Your task to perform on an android device: Clear the shopping cart on costco.com. Add "logitech g pro" to the cart on costco.com Image 0: 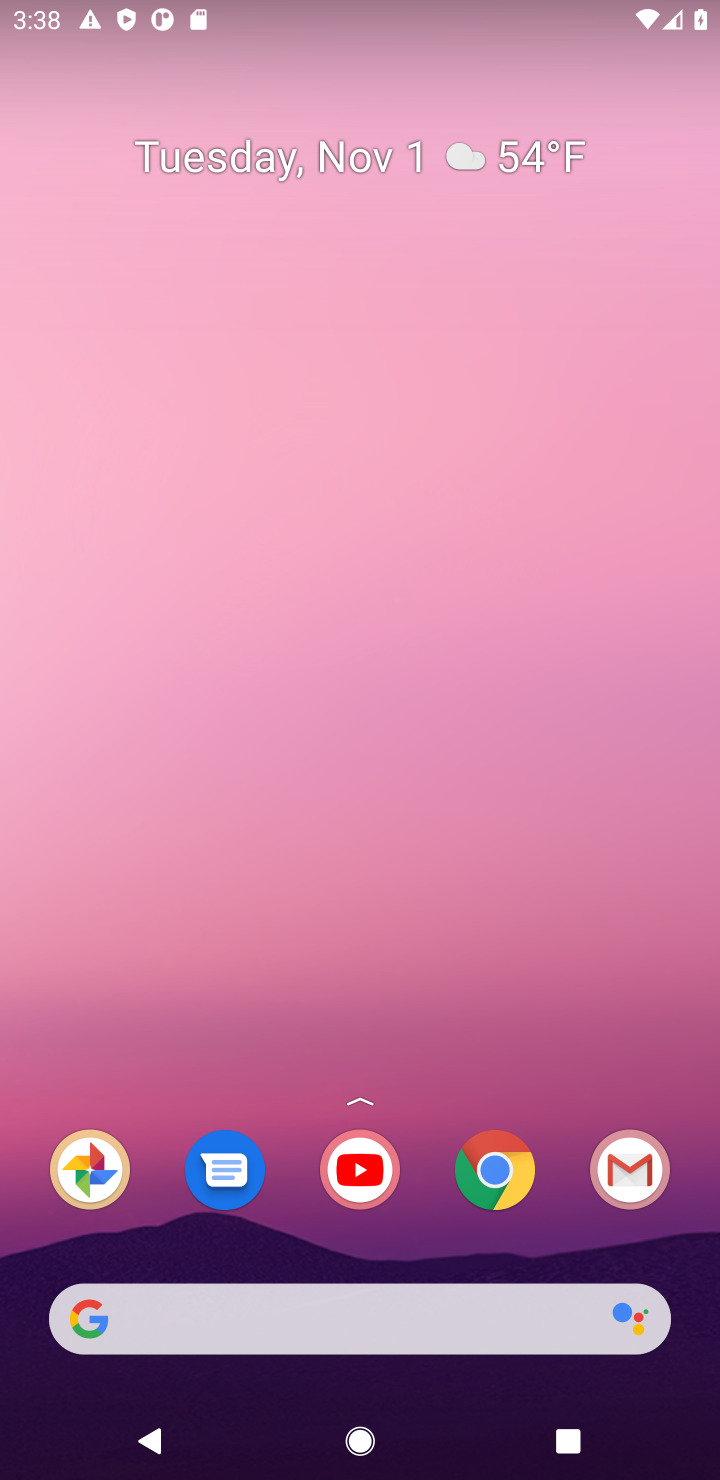
Step 0: drag from (442, 1350) to (401, 171)
Your task to perform on an android device: Clear the shopping cart on costco.com. Add "logitech g pro" to the cart on costco.com Image 1: 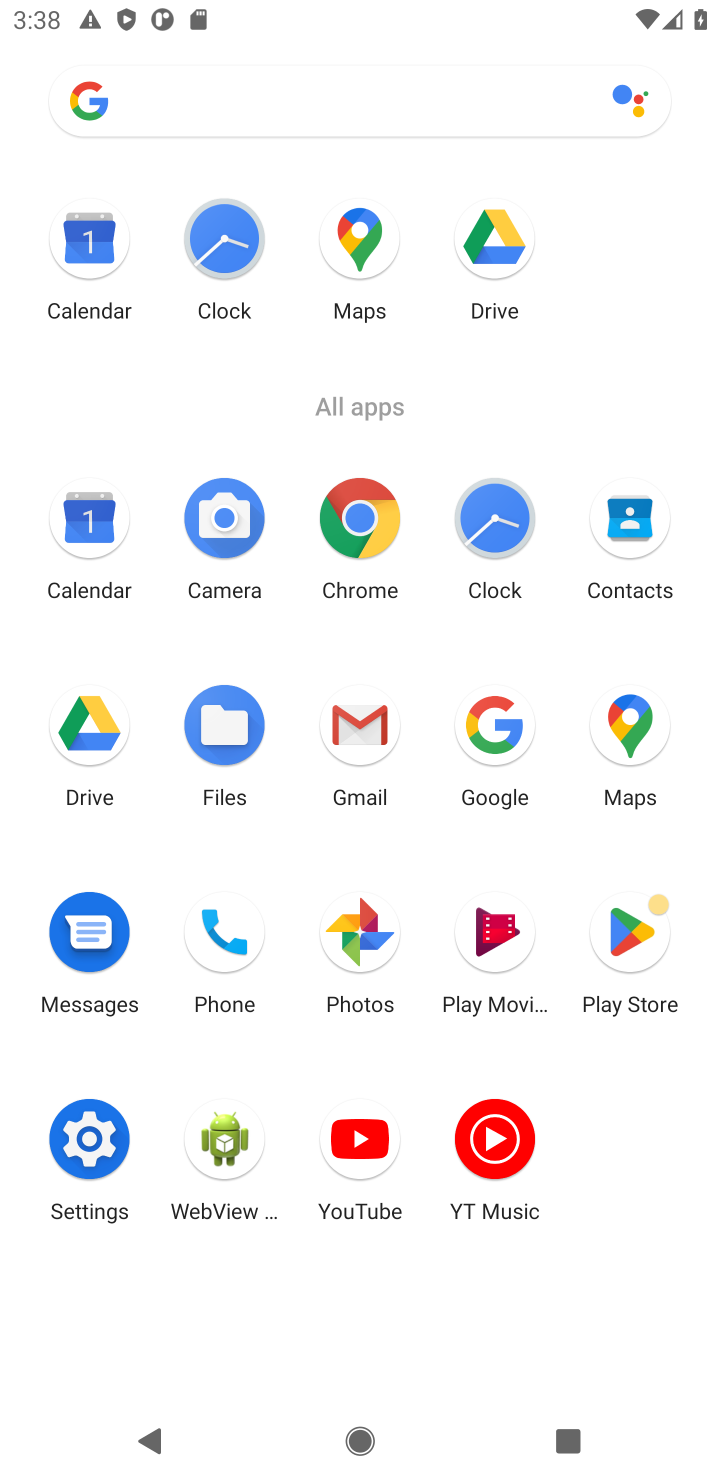
Step 1: click (349, 533)
Your task to perform on an android device: Clear the shopping cart on costco.com. Add "logitech g pro" to the cart on costco.com Image 2: 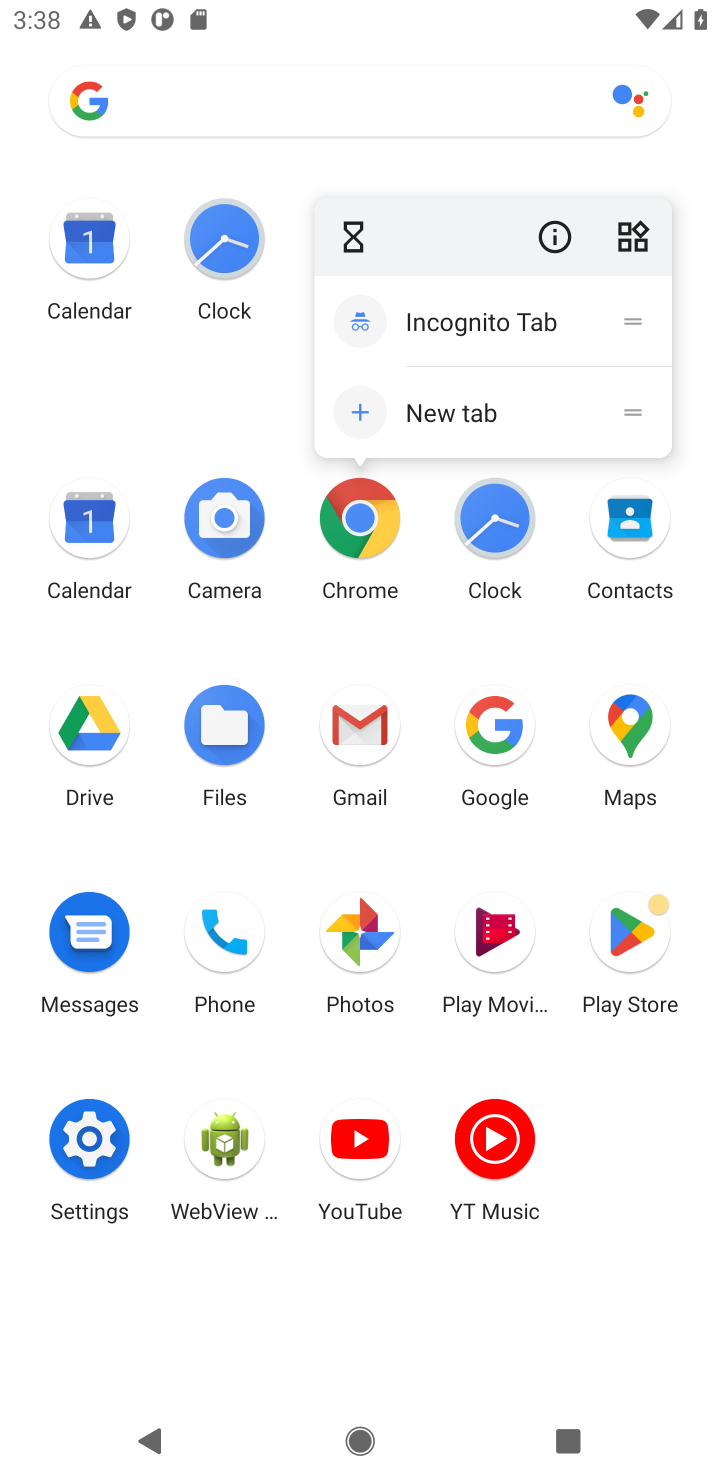
Step 2: click (370, 511)
Your task to perform on an android device: Clear the shopping cart on costco.com. Add "logitech g pro" to the cart on costco.com Image 3: 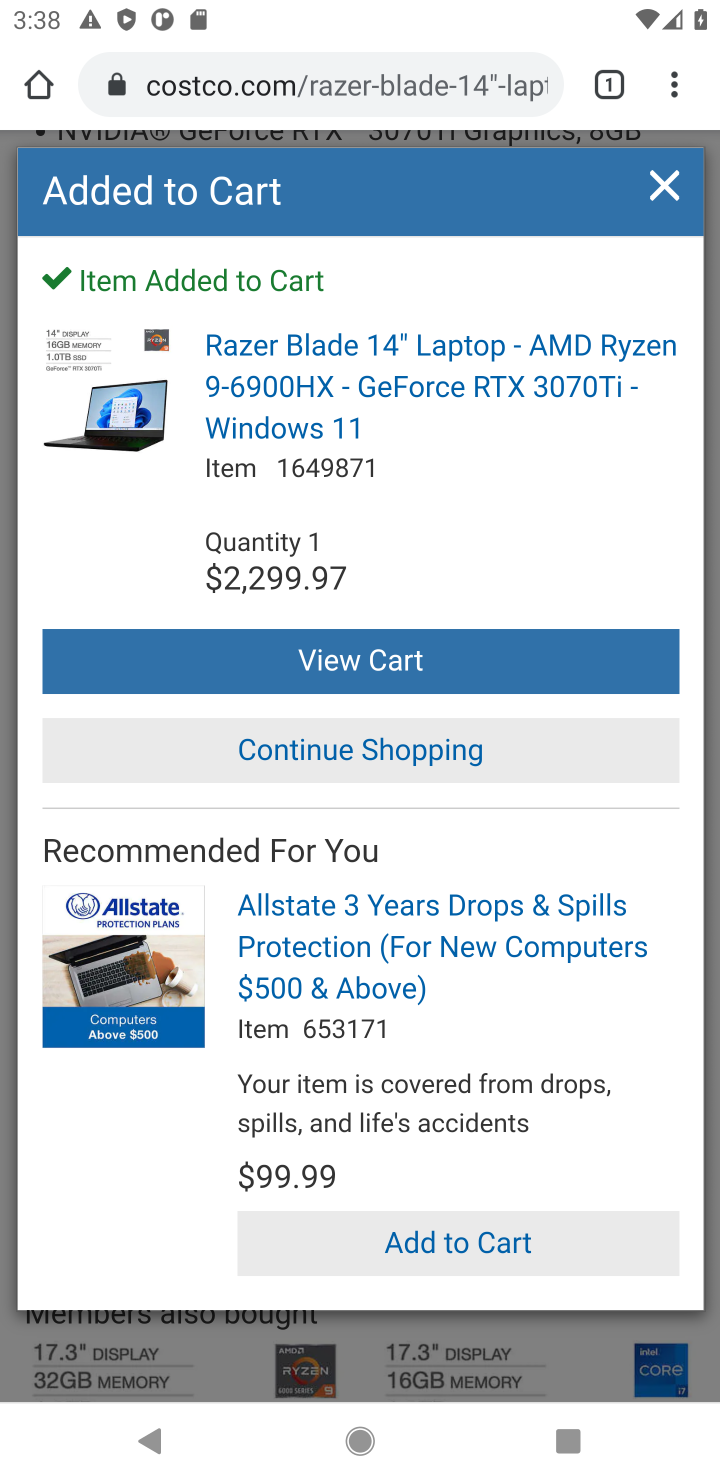
Step 3: click (407, 80)
Your task to perform on an android device: Clear the shopping cart on costco.com. Add "logitech g pro" to the cart on costco.com Image 4: 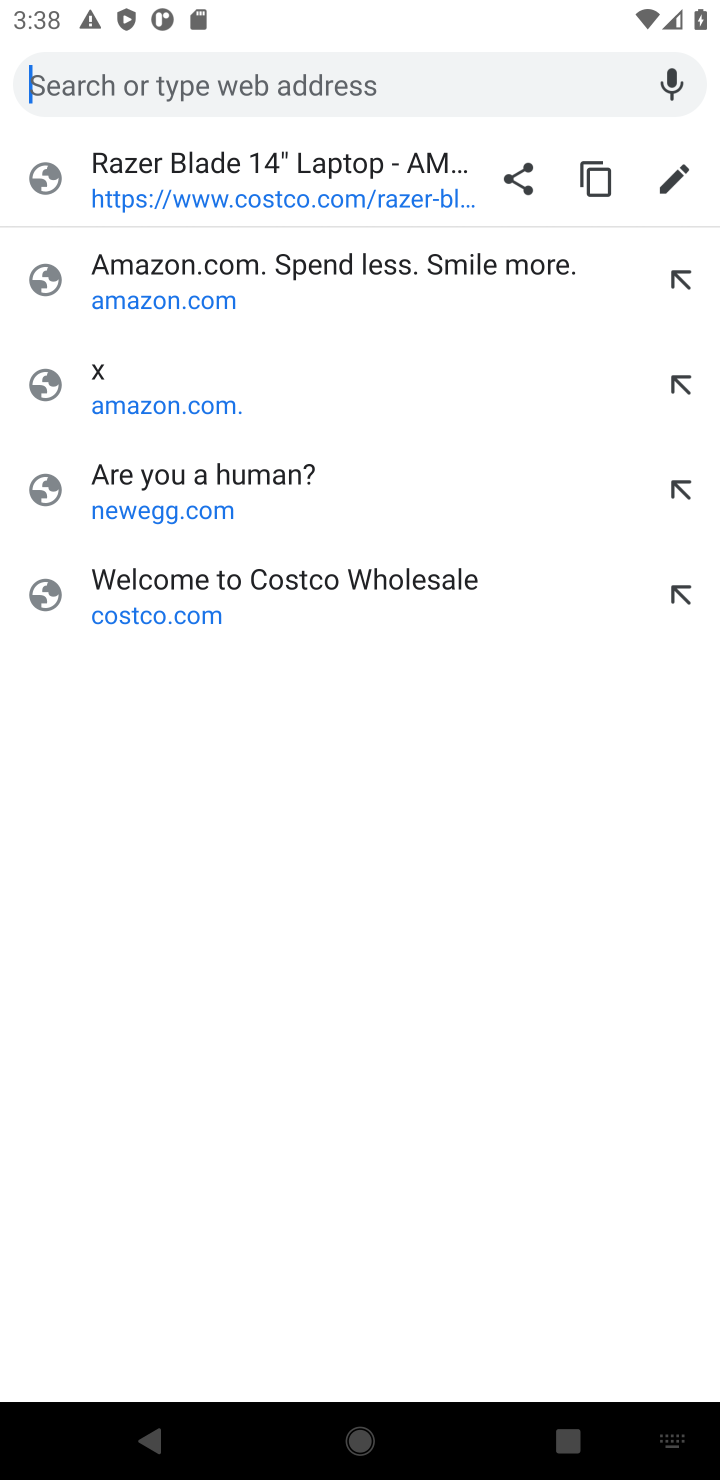
Step 4: type "costco.com"
Your task to perform on an android device: Clear the shopping cart on costco.com. Add "logitech g pro" to the cart on costco.com Image 5: 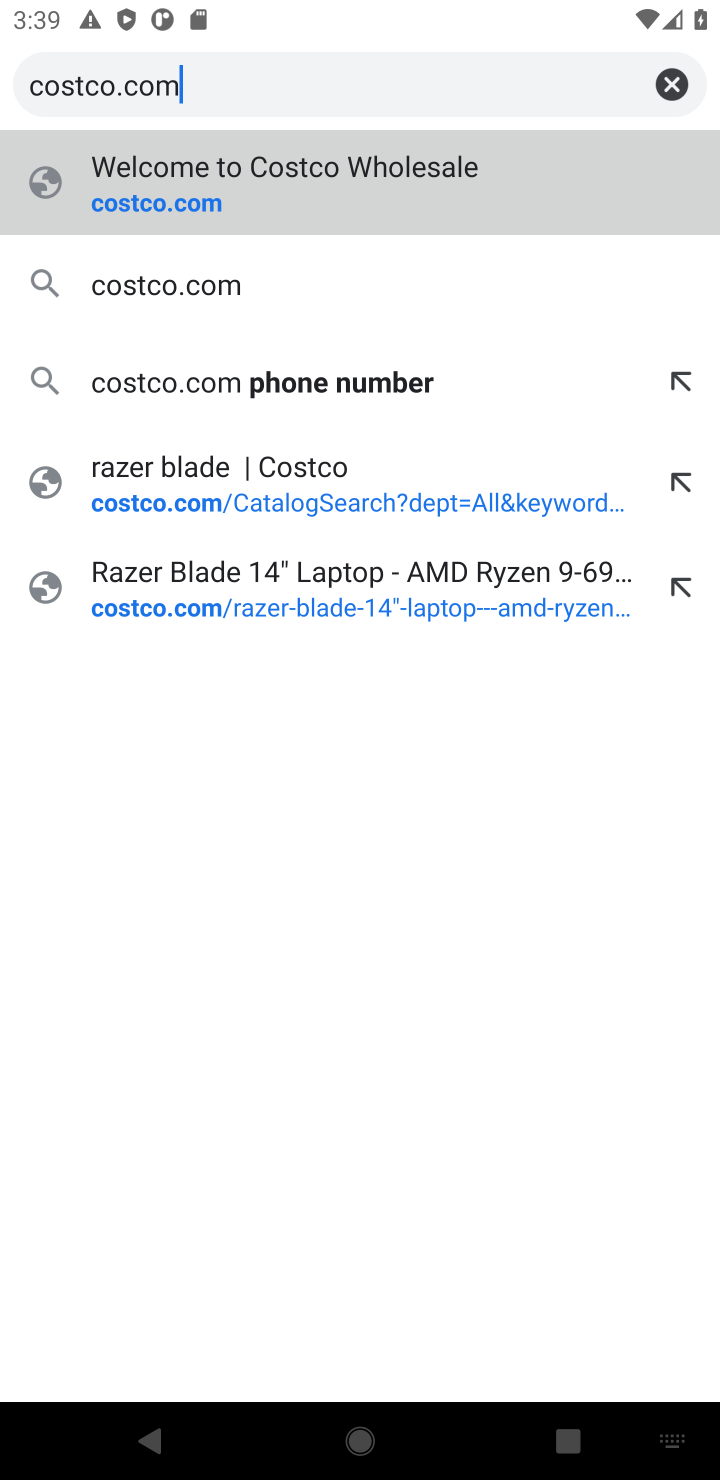
Step 5: click (167, 197)
Your task to perform on an android device: Clear the shopping cart on costco.com. Add "logitech g pro" to the cart on costco.com Image 6: 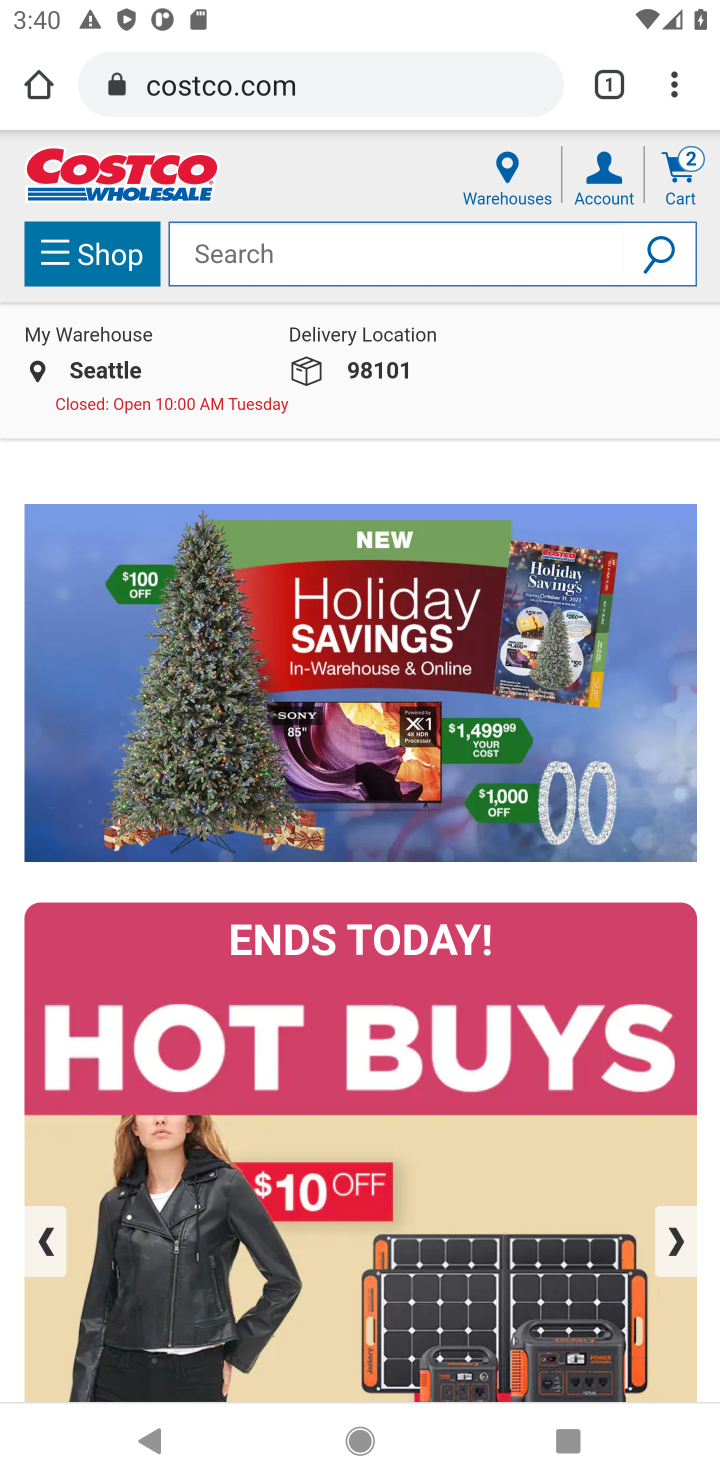
Step 6: click (420, 260)
Your task to perform on an android device: Clear the shopping cart on costco.com. Add "logitech g pro" to the cart on costco.com Image 7: 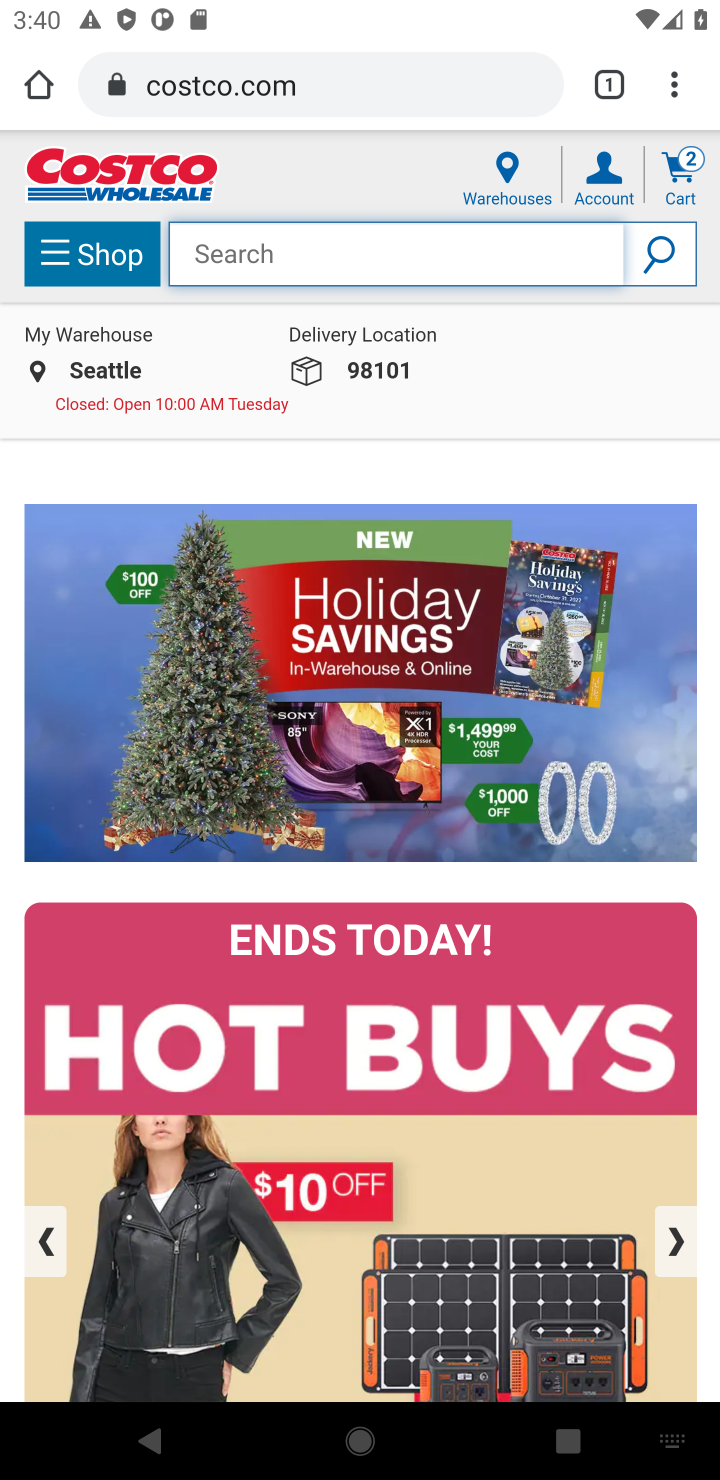
Step 7: type "logitech g pro"
Your task to perform on an android device: Clear the shopping cart on costco.com. Add "logitech g pro" to the cart on costco.com Image 8: 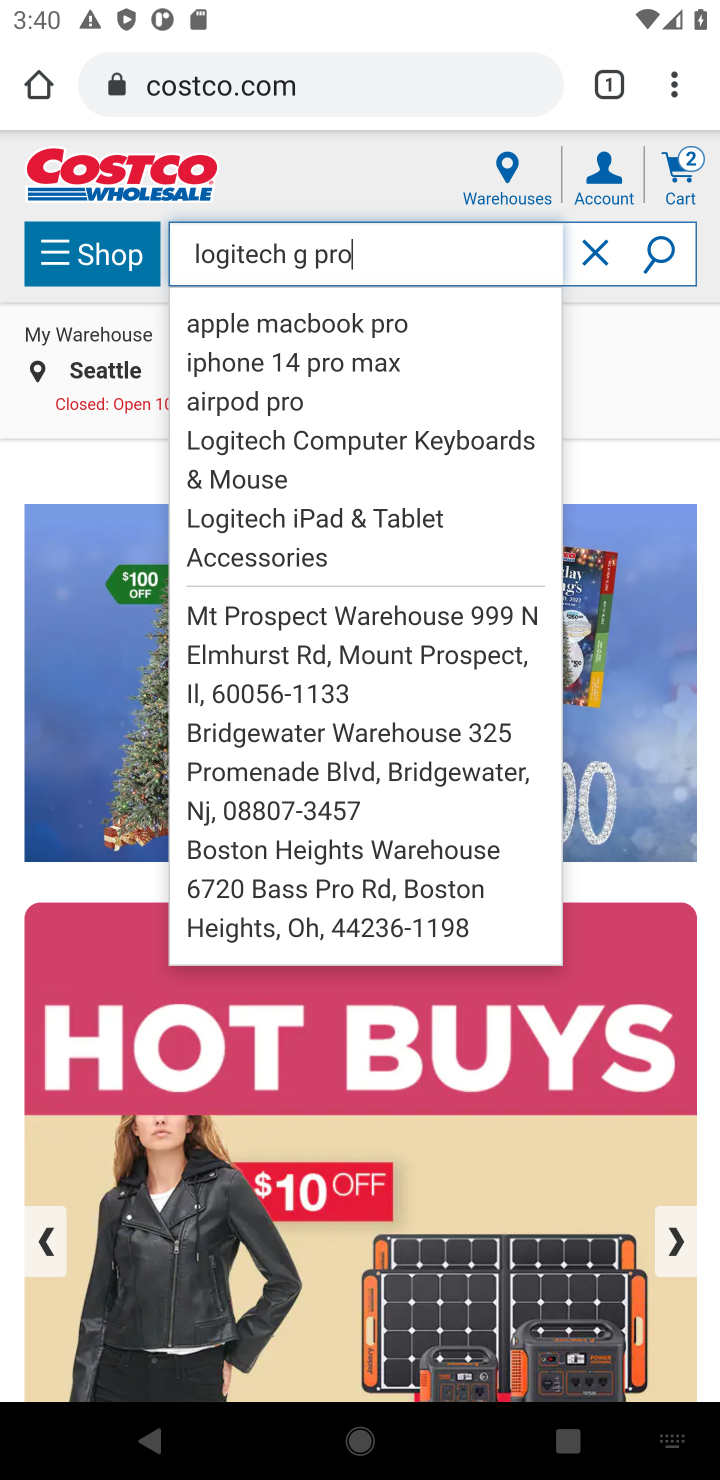
Step 8: click (658, 241)
Your task to perform on an android device: Clear the shopping cart on costco.com. Add "logitech g pro" to the cart on costco.com Image 9: 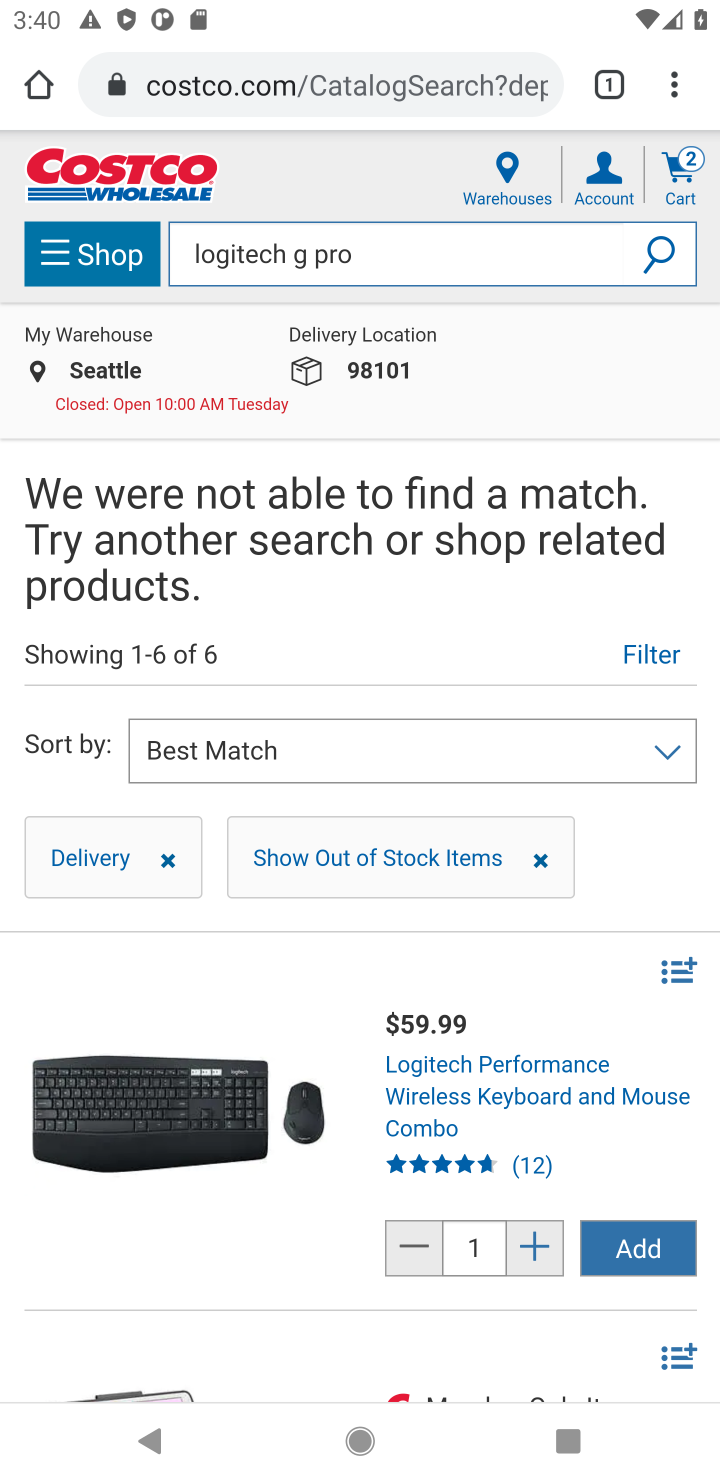
Step 9: task complete